Your task to perform on an android device: Add razer kraken to the cart on amazon.com, then select checkout. Image 0: 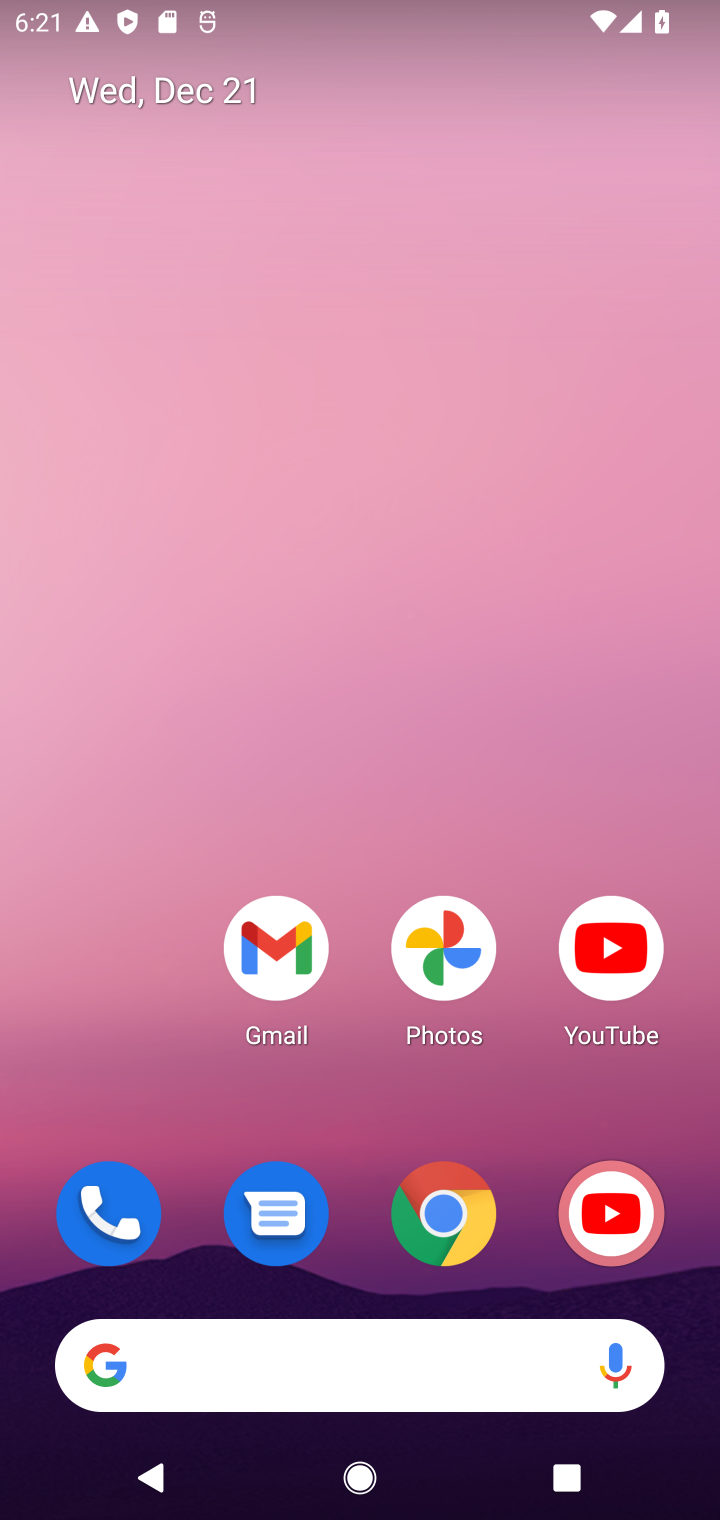
Step 0: click (441, 1211)
Your task to perform on an android device: Add razer kraken to the cart on amazon.com, then select checkout. Image 1: 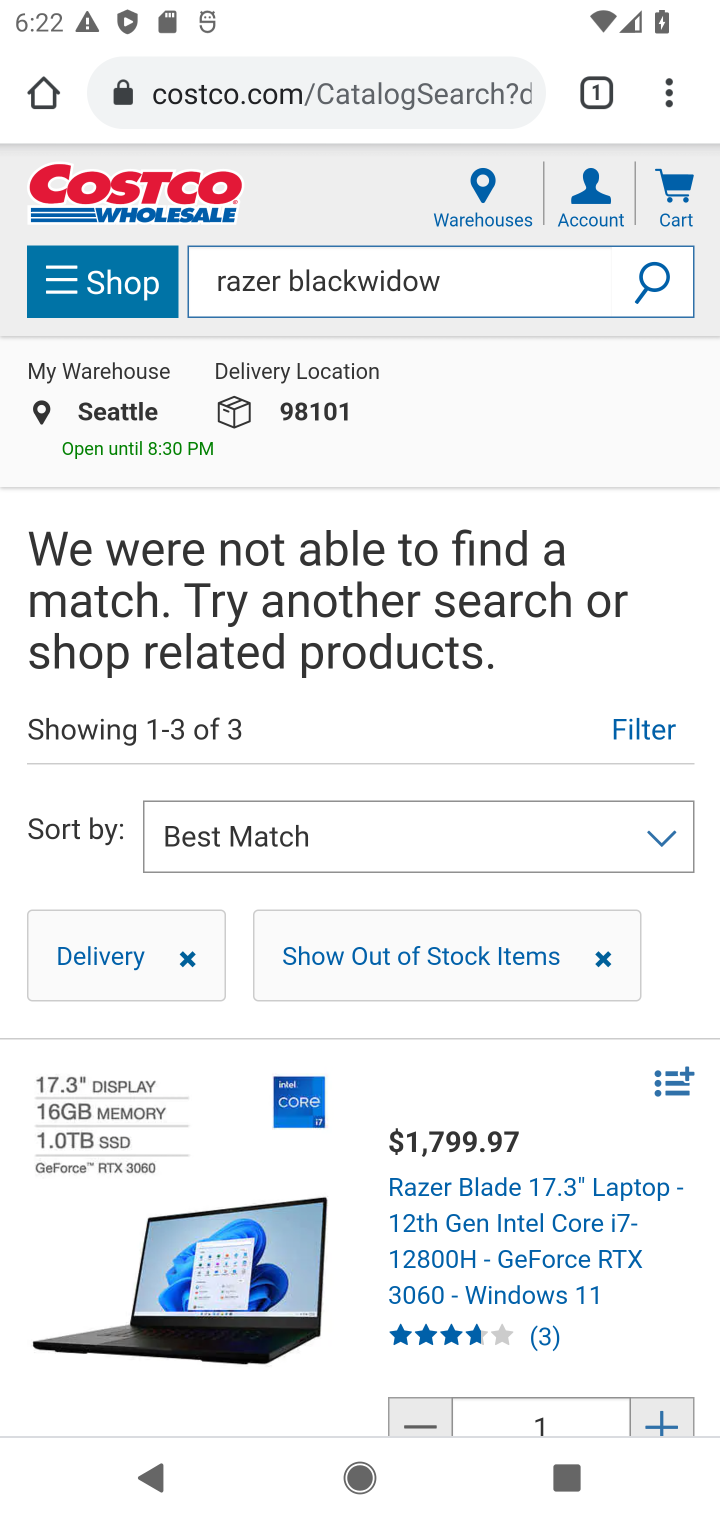
Step 1: click (293, 91)
Your task to perform on an android device: Add razer kraken to the cart on amazon.com, then select checkout. Image 2: 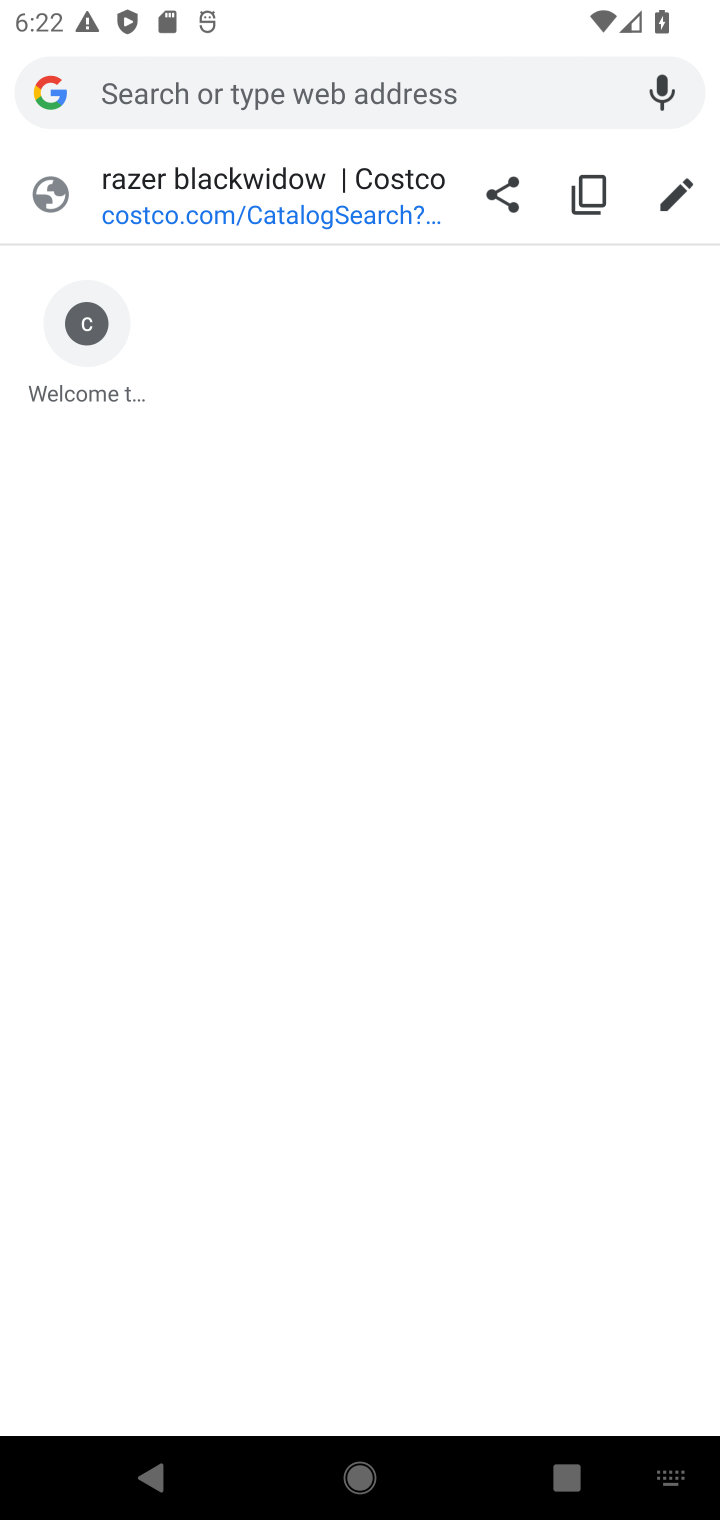
Step 2: type "amazon"
Your task to perform on an android device: Add razer kraken to the cart on amazon.com, then select checkout. Image 3: 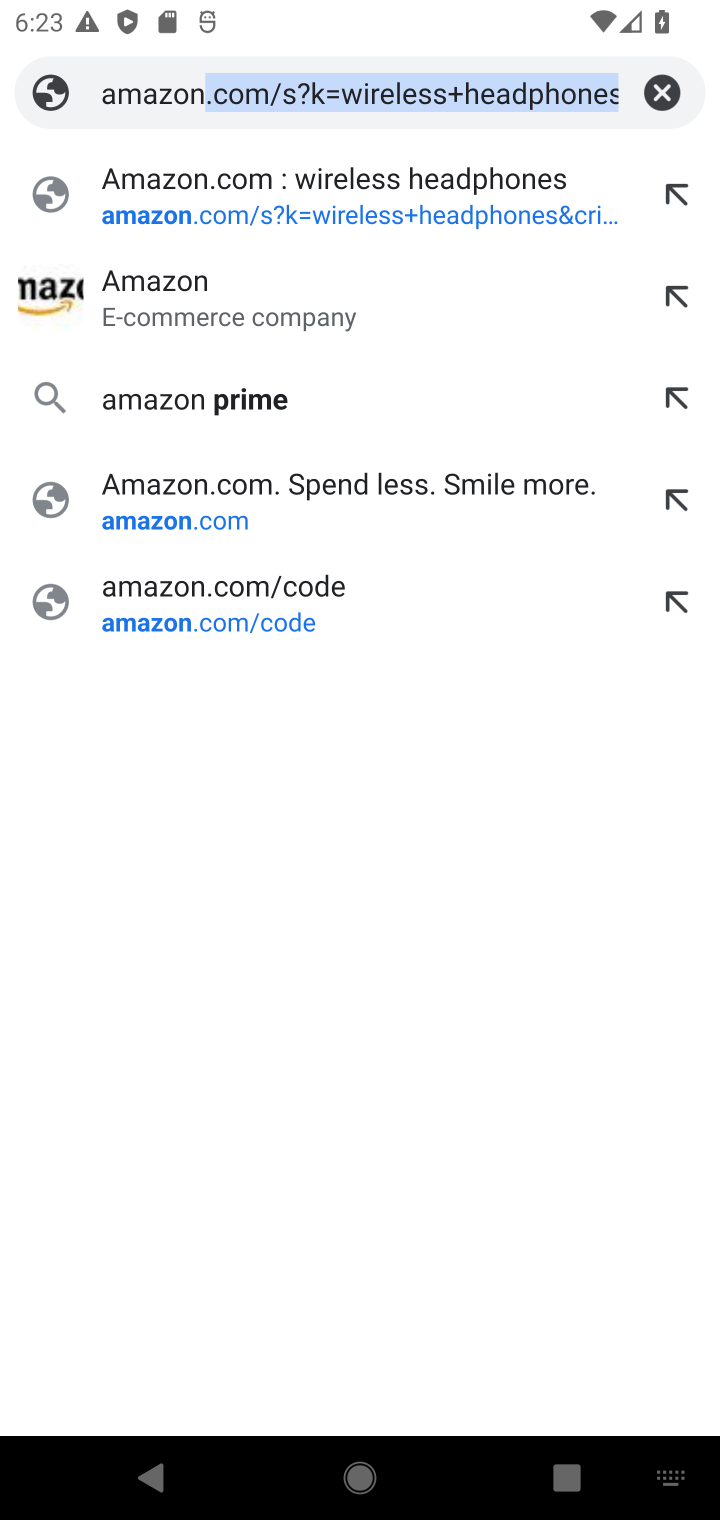
Step 3: click (234, 202)
Your task to perform on an android device: Add razer kraken to the cart on amazon.com, then select checkout. Image 4: 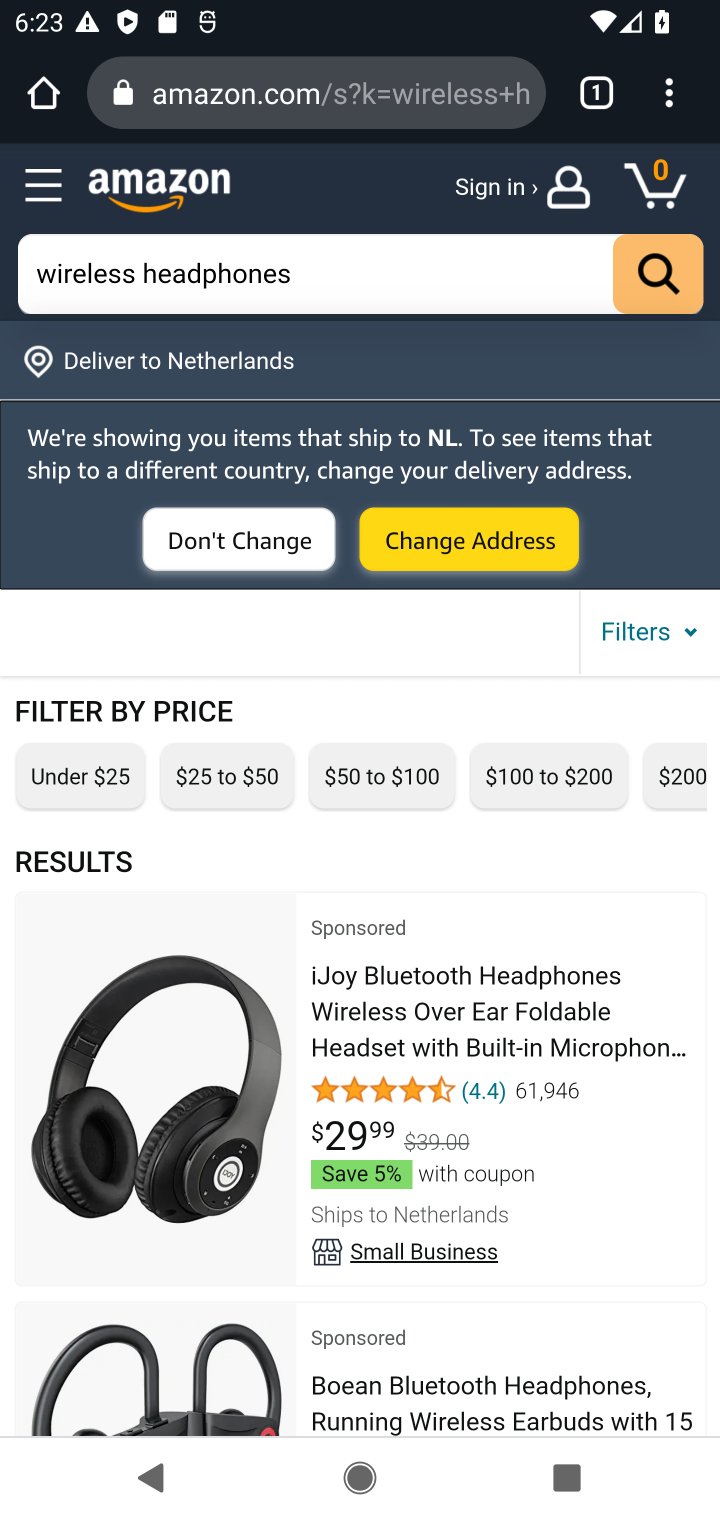
Step 4: click (399, 809)
Your task to perform on an android device: Add razer kraken to the cart on amazon.com, then select checkout. Image 5: 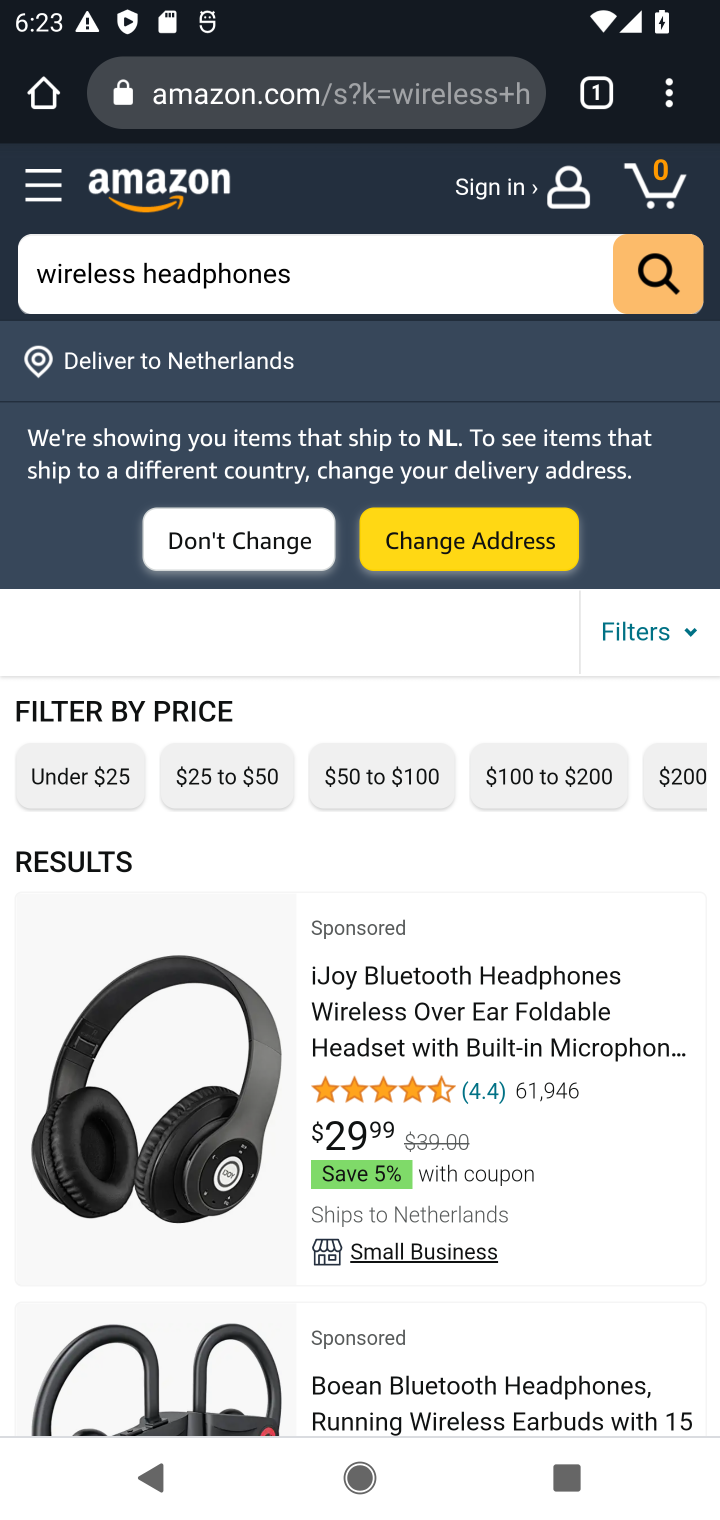
Step 5: click (280, 281)
Your task to perform on an android device: Add razer kraken to the cart on amazon.com, then select checkout. Image 6: 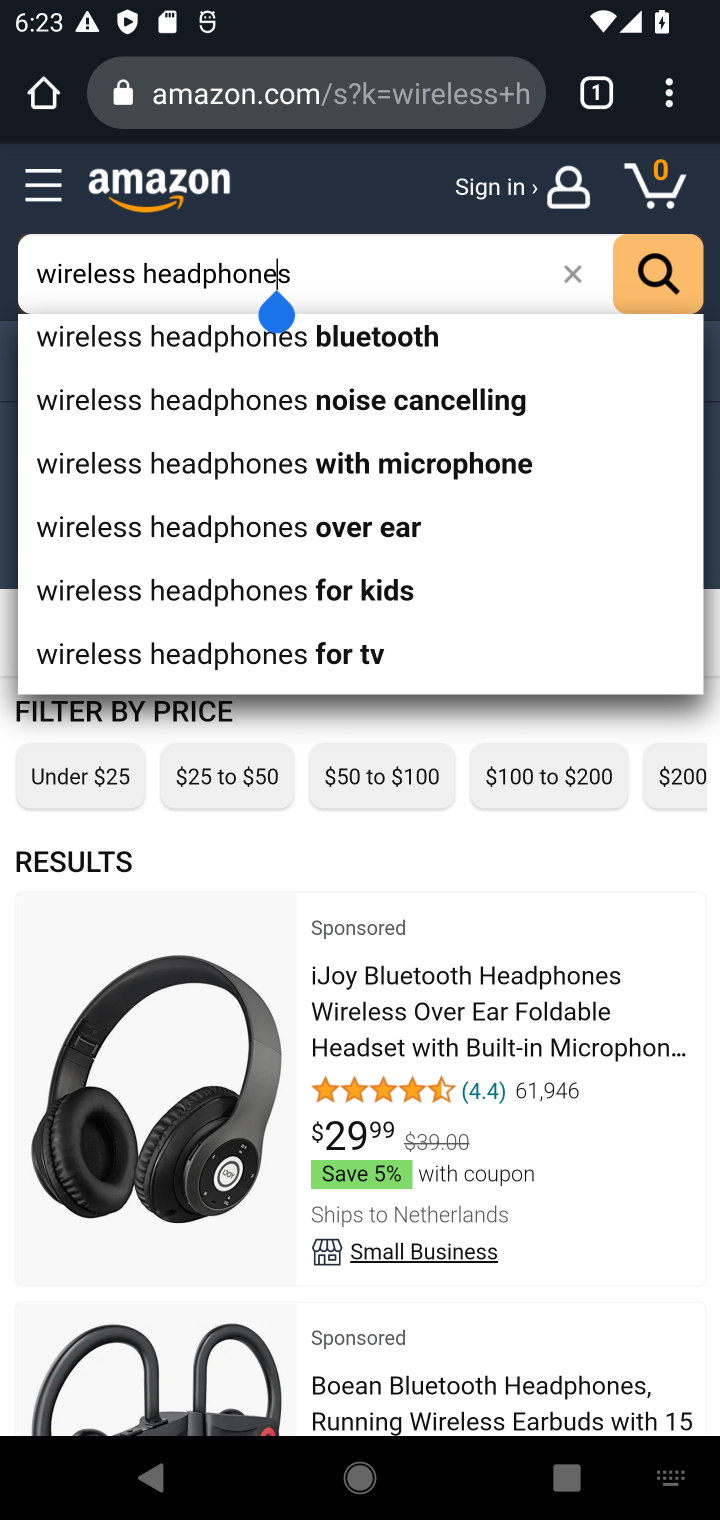
Step 6: click (566, 273)
Your task to perform on an android device: Add razer kraken to the cart on amazon.com, then select checkout. Image 7: 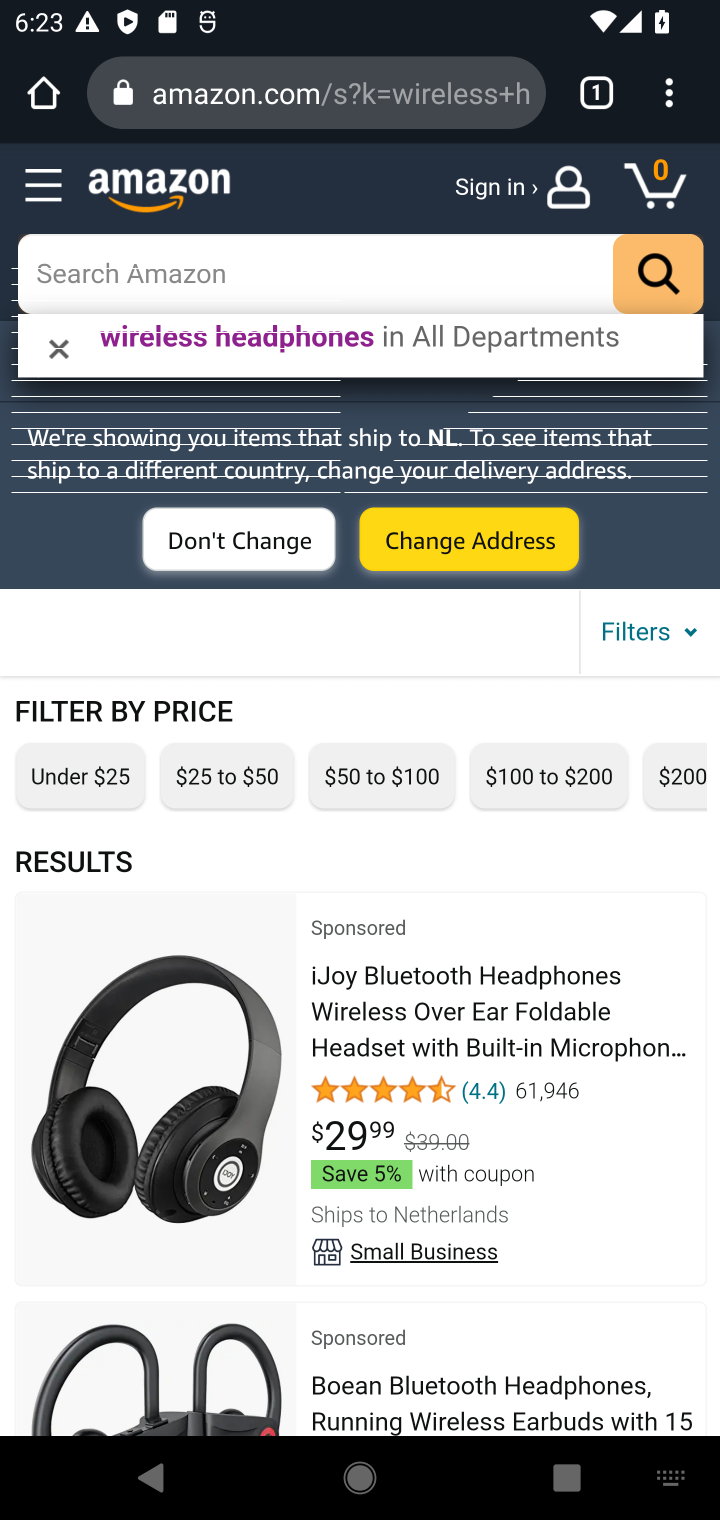
Step 7: type "razer karken"
Your task to perform on an android device: Add razer kraken to the cart on amazon.com, then select checkout. Image 8: 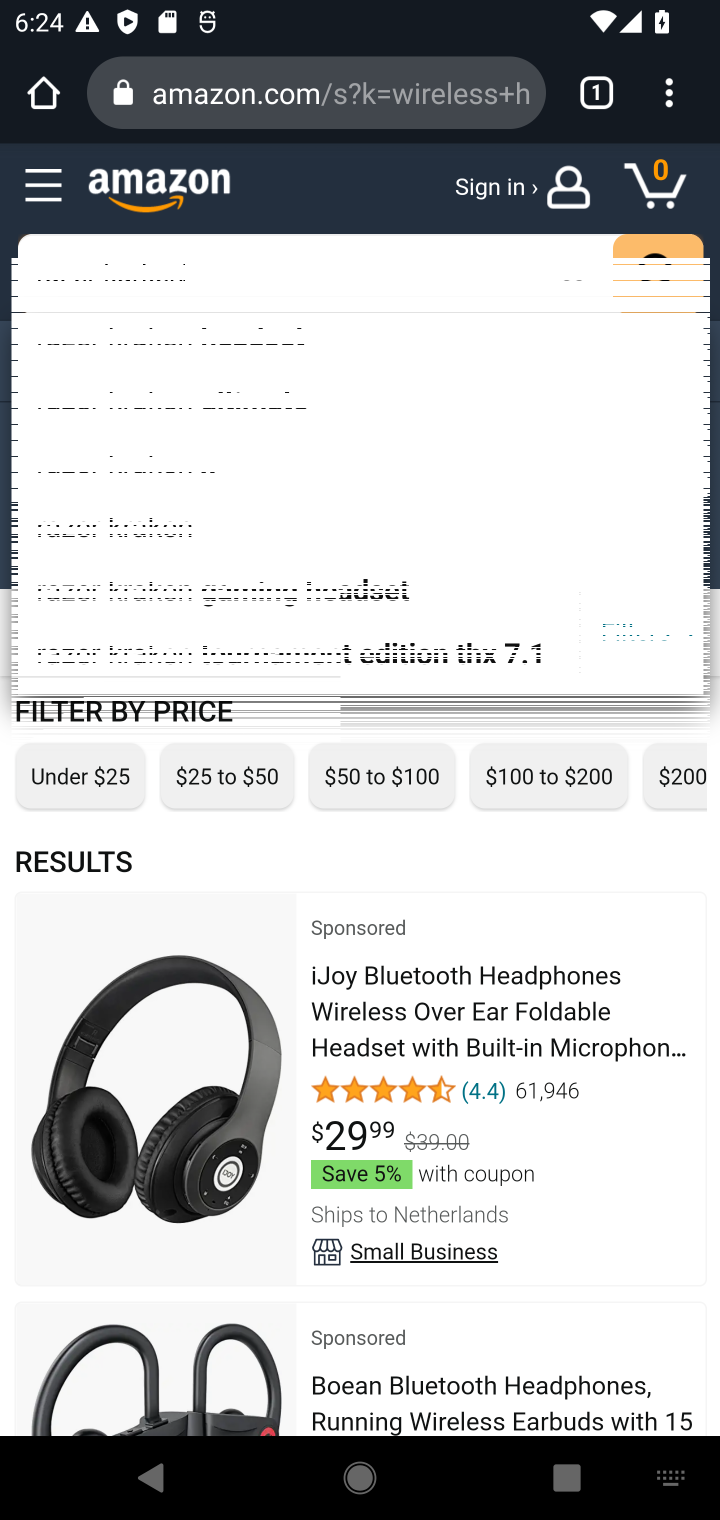
Step 8: click (653, 286)
Your task to perform on an android device: Add razer kraken to the cart on amazon.com, then select checkout. Image 9: 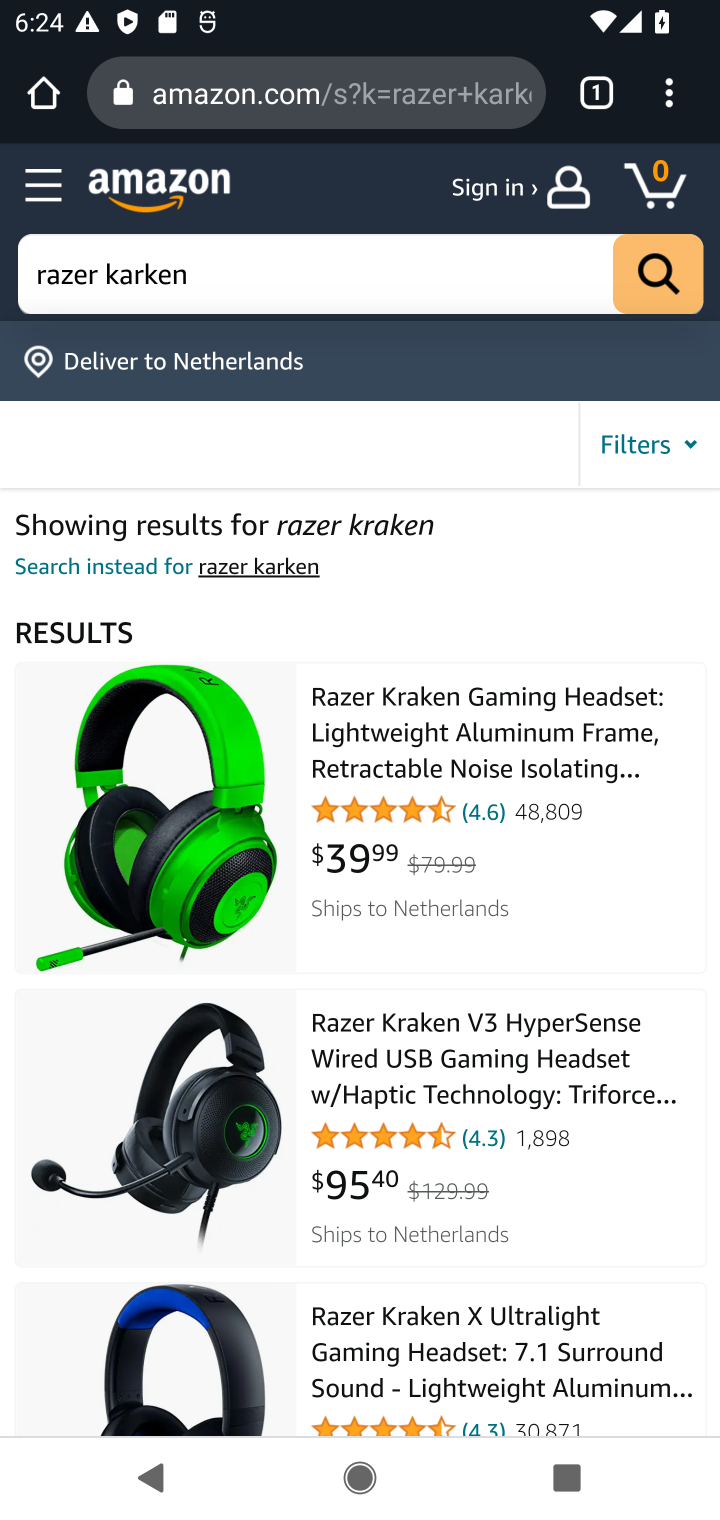
Step 9: click (452, 688)
Your task to perform on an android device: Add razer kraken to the cart on amazon.com, then select checkout. Image 10: 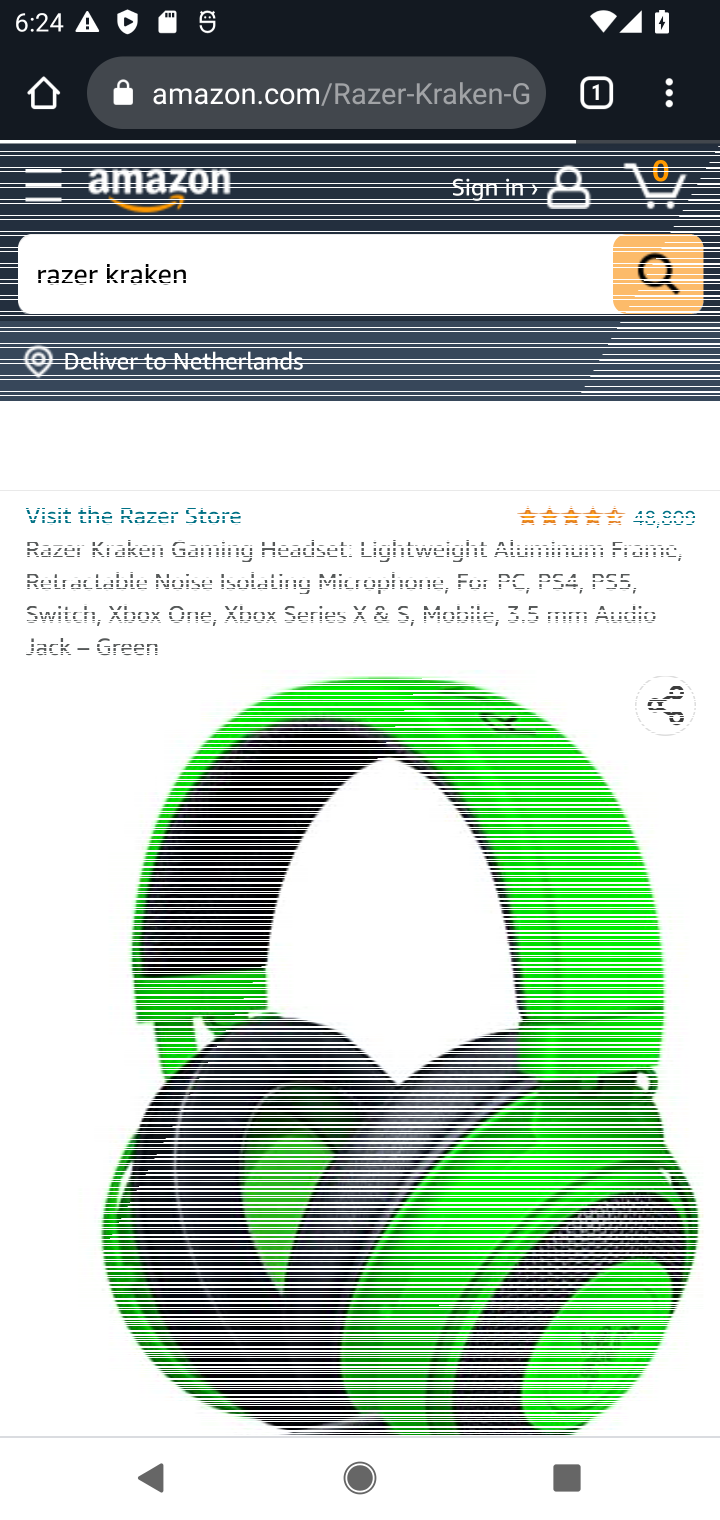
Step 10: drag from (331, 1192) to (327, 212)
Your task to perform on an android device: Add razer kraken to the cart on amazon.com, then select checkout. Image 11: 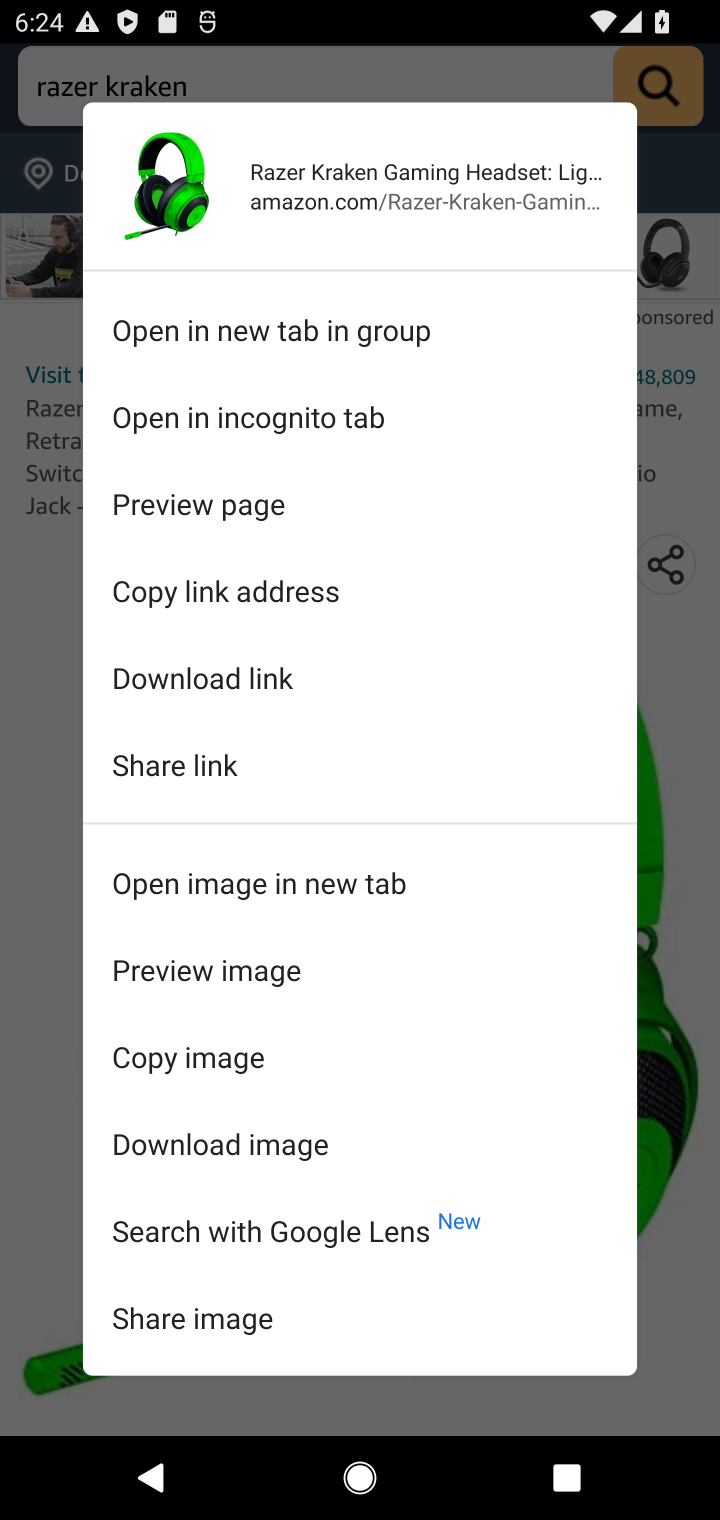
Step 11: click (32, 1239)
Your task to perform on an android device: Add razer kraken to the cart on amazon.com, then select checkout. Image 12: 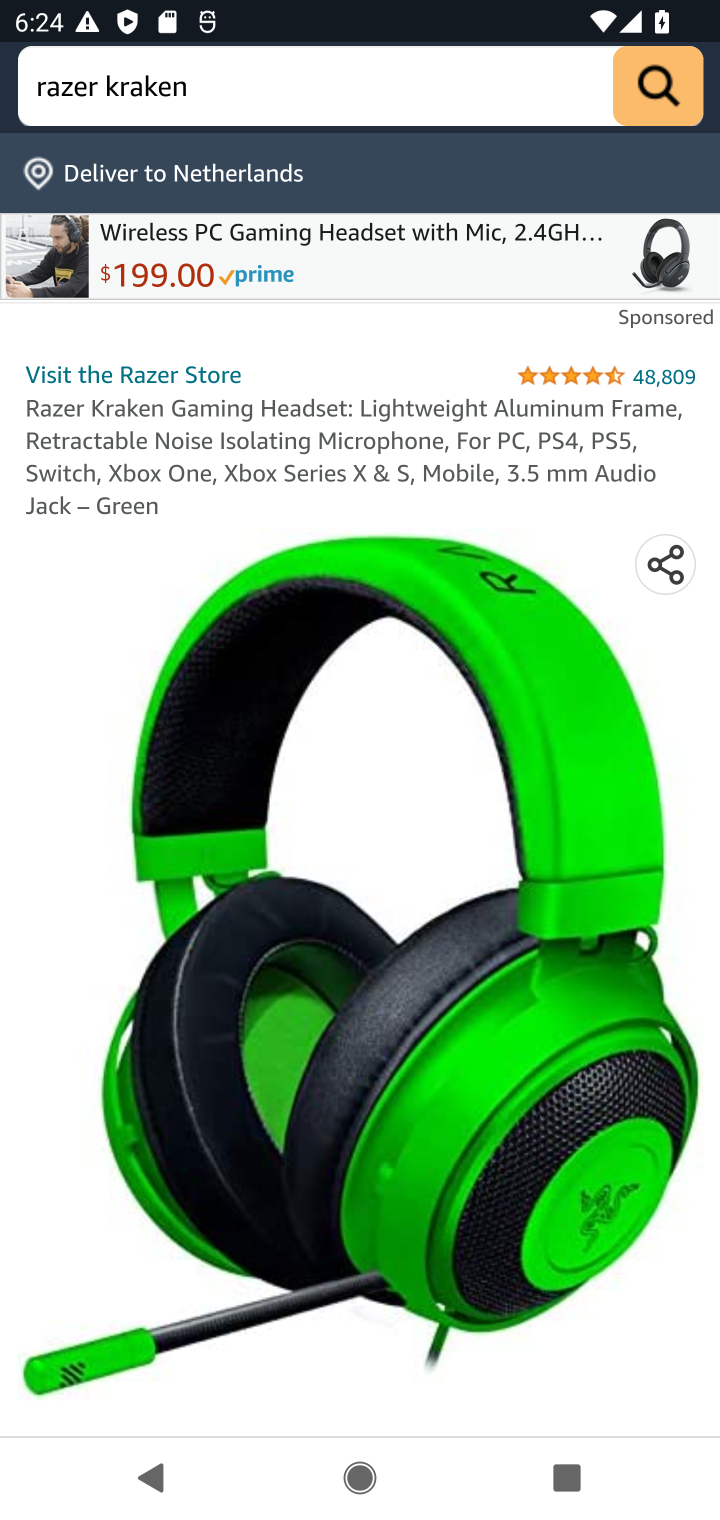
Step 12: drag from (372, 1386) to (367, 1206)
Your task to perform on an android device: Add razer kraken to the cart on amazon.com, then select checkout. Image 13: 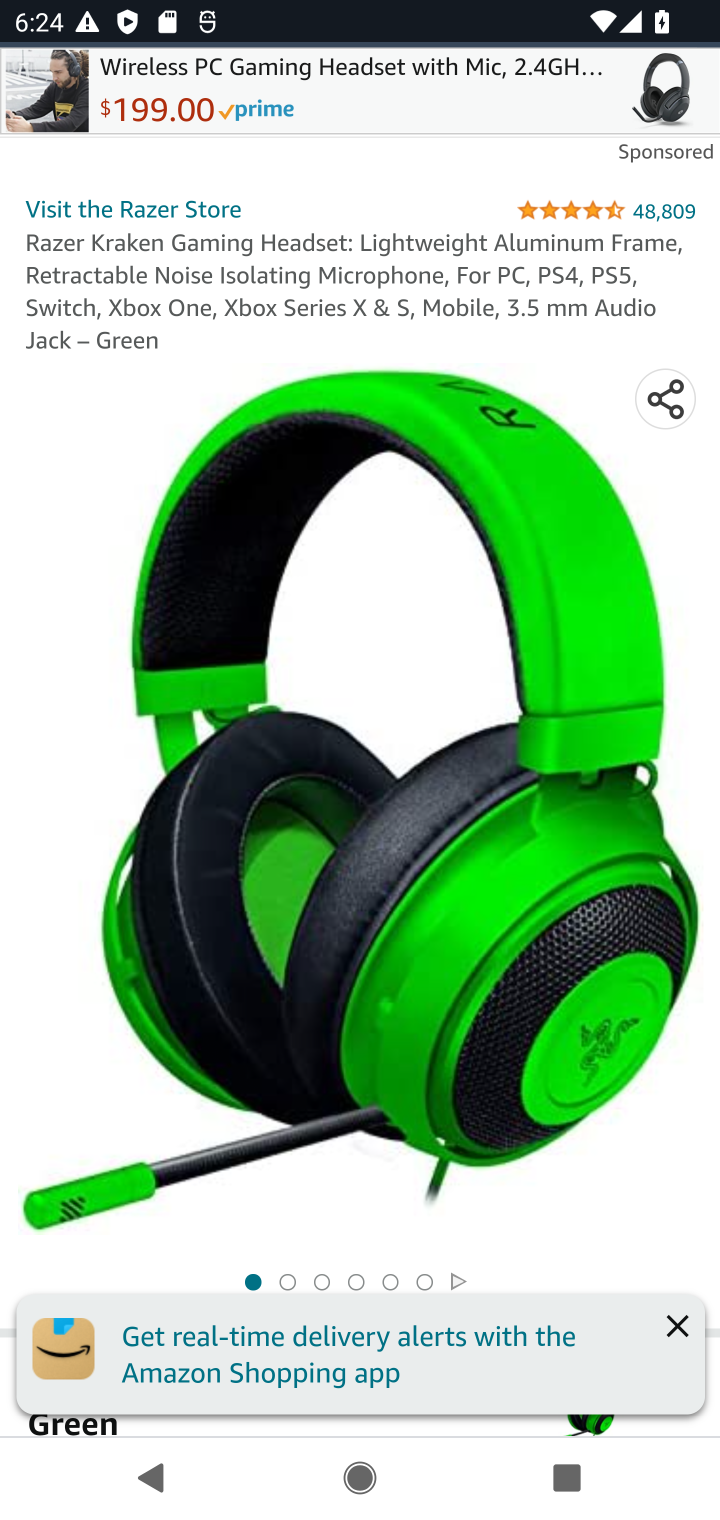
Step 13: drag from (583, 1263) to (470, 262)
Your task to perform on an android device: Add razer kraken to the cart on amazon.com, then select checkout. Image 14: 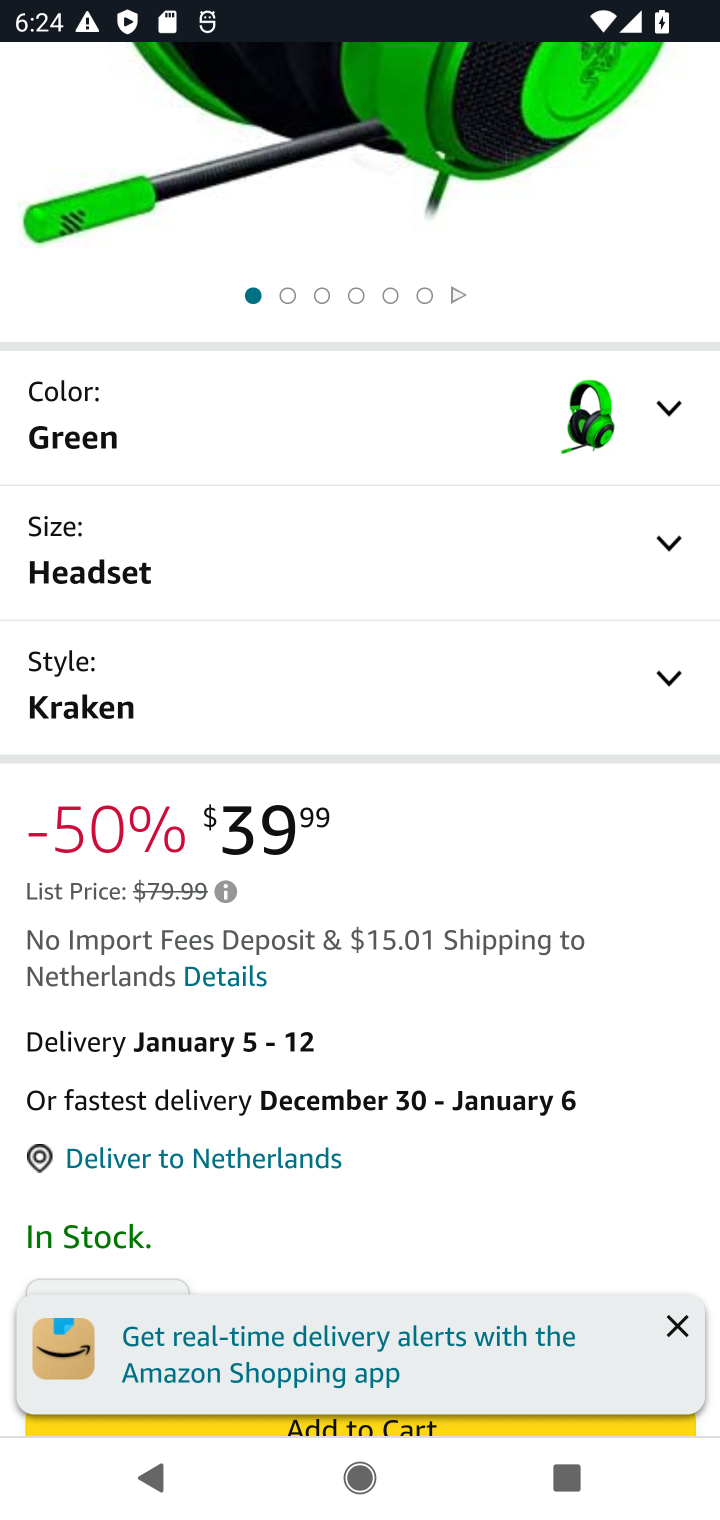
Step 14: drag from (426, 1205) to (430, 901)
Your task to perform on an android device: Add razer kraken to the cart on amazon.com, then select checkout. Image 15: 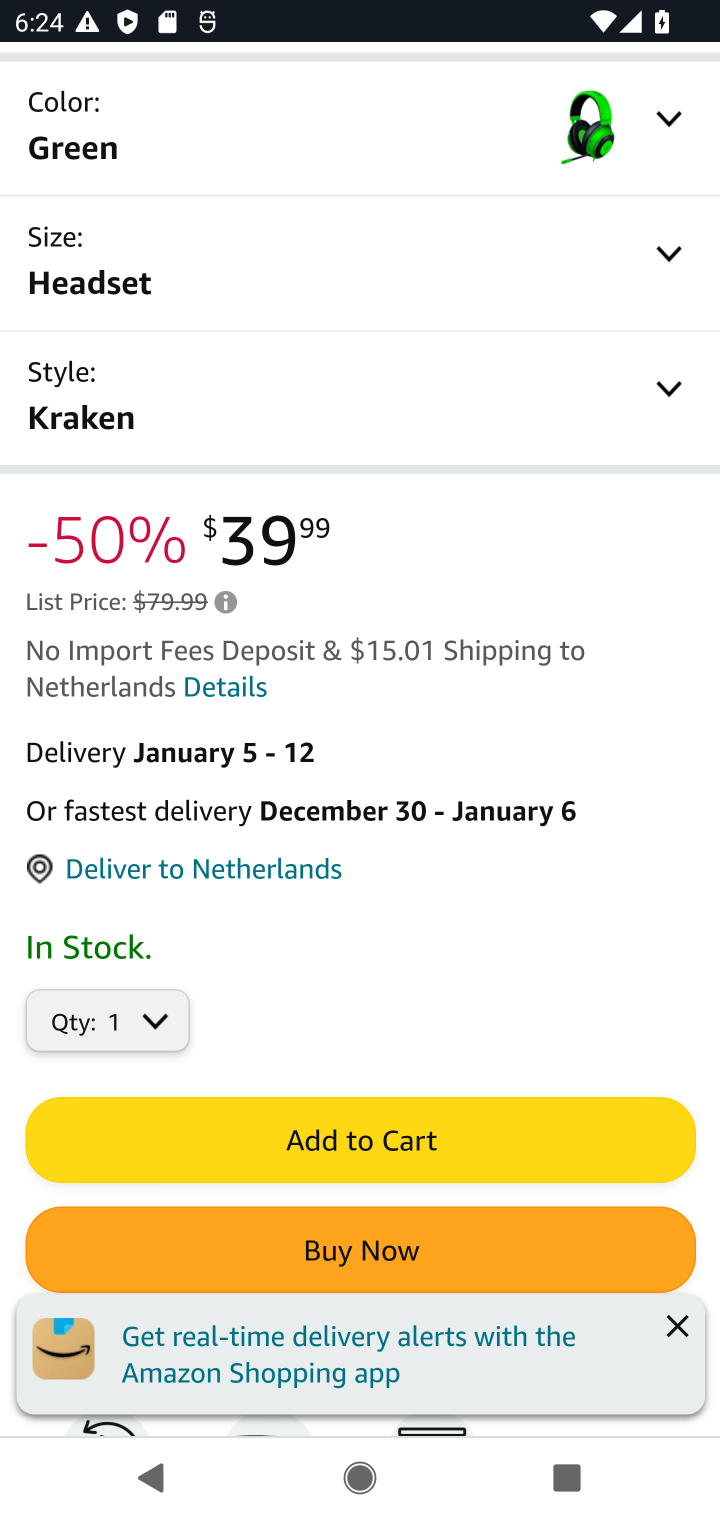
Step 15: click (409, 1156)
Your task to perform on an android device: Add razer kraken to the cart on amazon.com, then select checkout. Image 16: 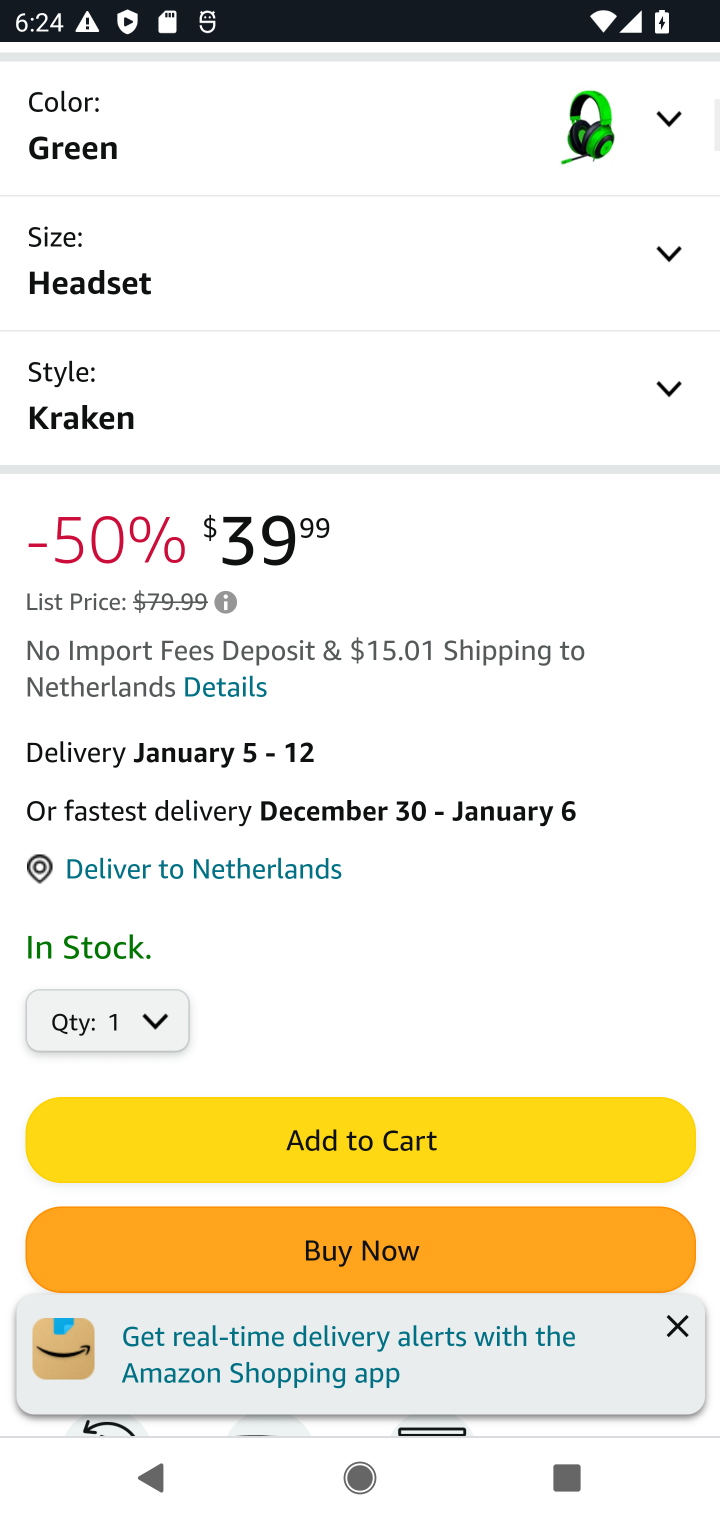
Step 16: task complete